Your task to perform on an android device: toggle notification dots Image 0: 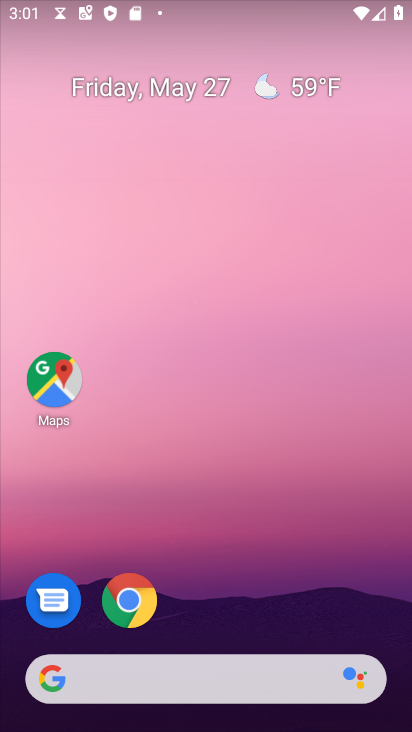
Step 0: drag from (257, 554) to (206, 131)
Your task to perform on an android device: toggle notification dots Image 1: 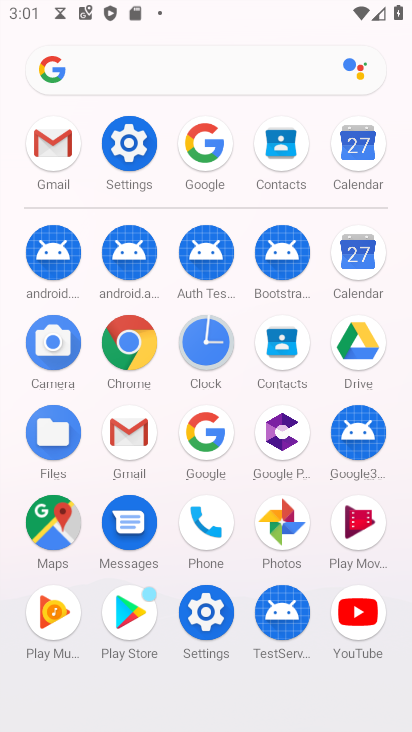
Step 1: click (205, 610)
Your task to perform on an android device: toggle notification dots Image 2: 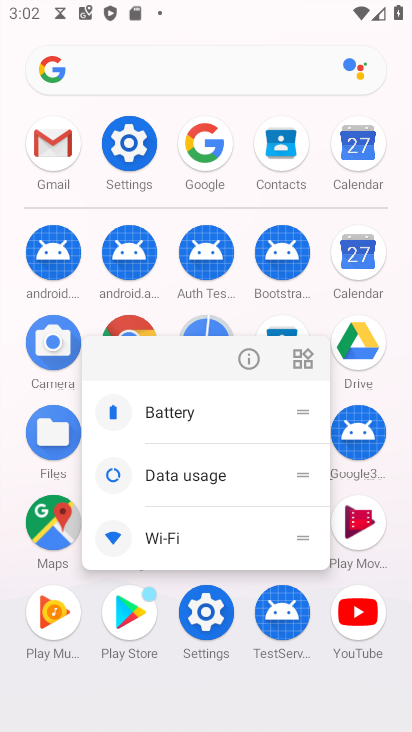
Step 2: click (205, 610)
Your task to perform on an android device: toggle notification dots Image 3: 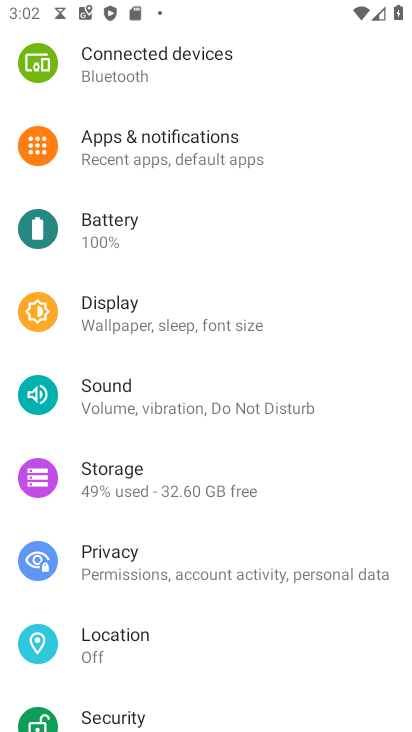
Step 3: click (155, 153)
Your task to perform on an android device: toggle notification dots Image 4: 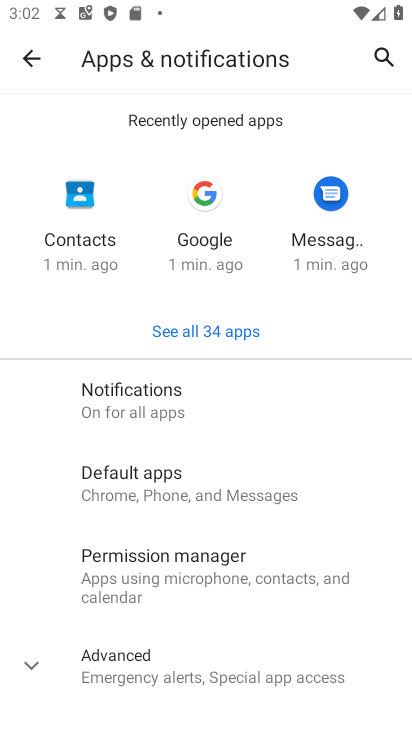
Step 4: drag from (176, 642) to (219, 500)
Your task to perform on an android device: toggle notification dots Image 5: 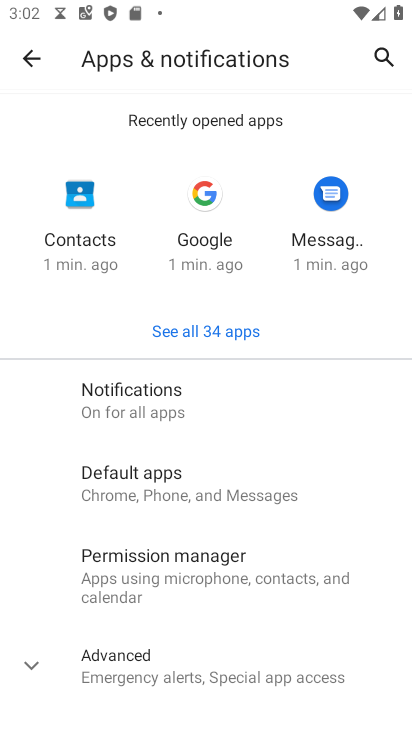
Step 5: click (152, 406)
Your task to perform on an android device: toggle notification dots Image 6: 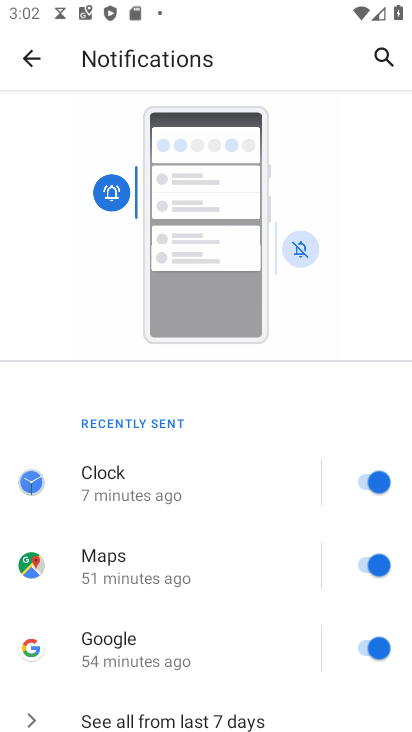
Step 6: drag from (144, 544) to (228, 447)
Your task to perform on an android device: toggle notification dots Image 7: 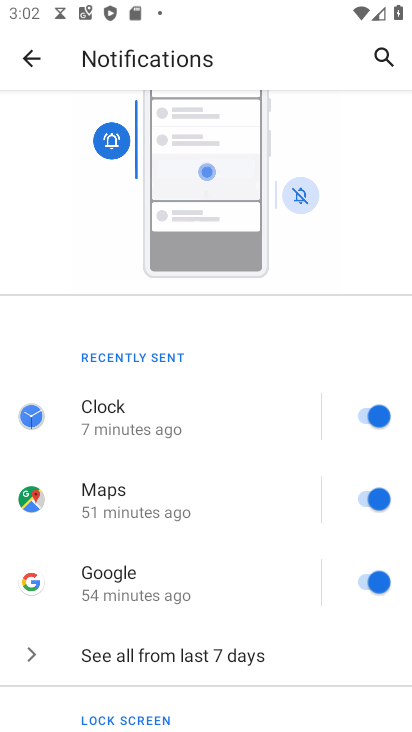
Step 7: drag from (140, 625) to (235, 496)
Your task to perform on an android device: toggle notification dots Image 8: 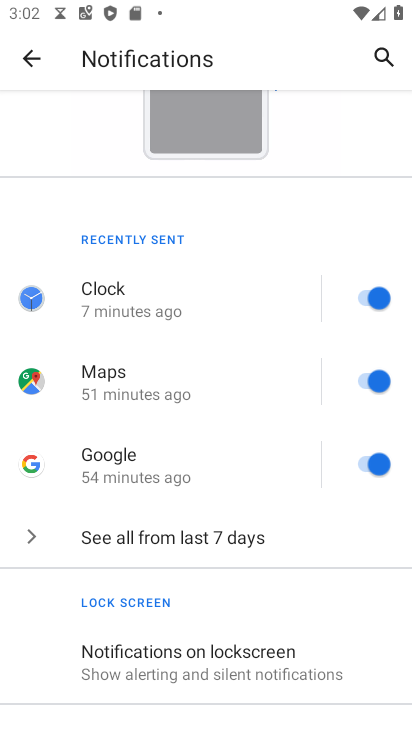
Step 8: drag from (172, 620) to (258, 353)
Your task to perform on an android device: toggle notification dots Image 9: 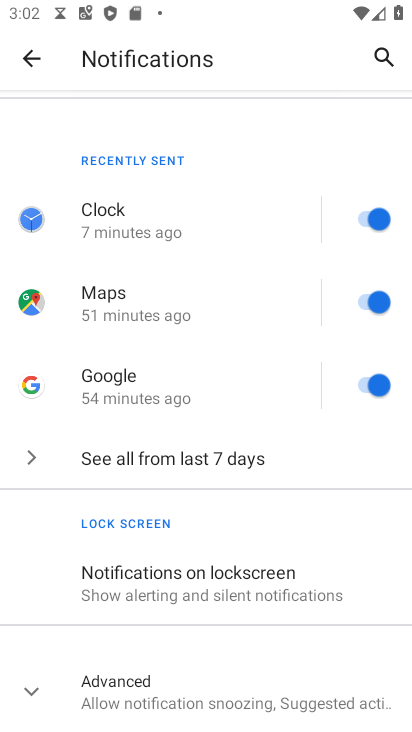
Step 9: click (158, 687)
Your task to perform on an android device: toggle notification dots Image 10: 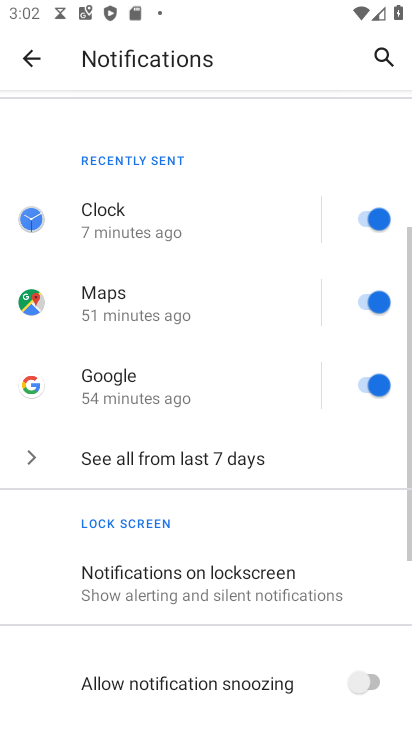
Step 10: drag from (190, 653) to (245, 521)
Your task to perform on an android device: toggle notification dots Image 11: 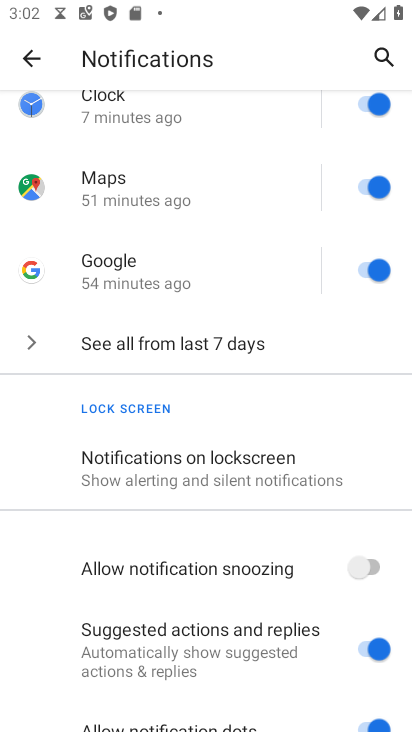
Step 11: drag from (237, 676) to (277, 546)
Your task to perform on an android device: toggle notification dots Image 12: 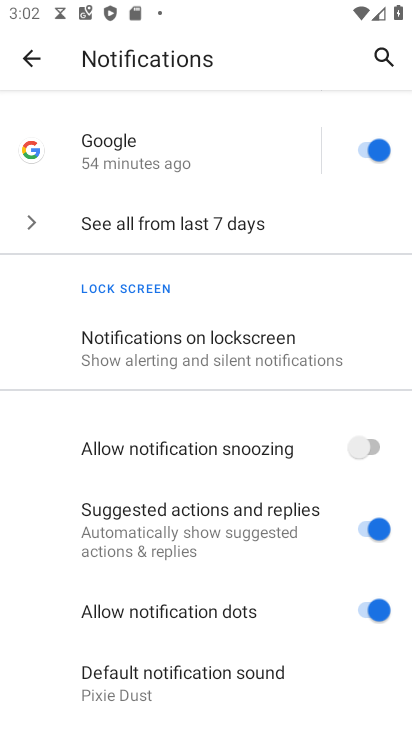
Step 12: click (372, 613)
Your task to perform on an android device: toggle notification dots Image 13: 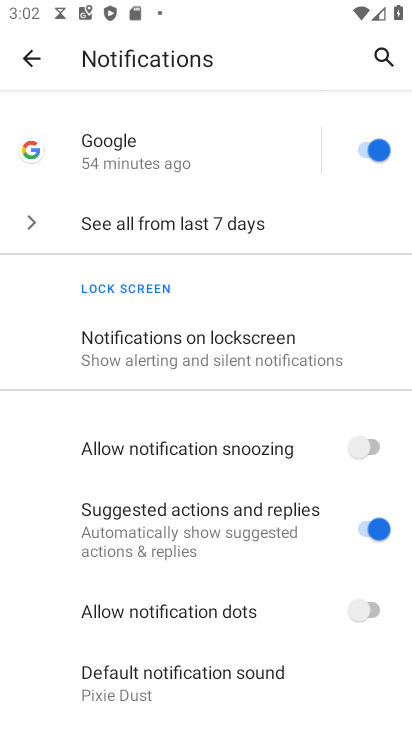
Step 13: task complete